Your task to perform on an android device: Open calendar and show me the third week of next month Image 0: 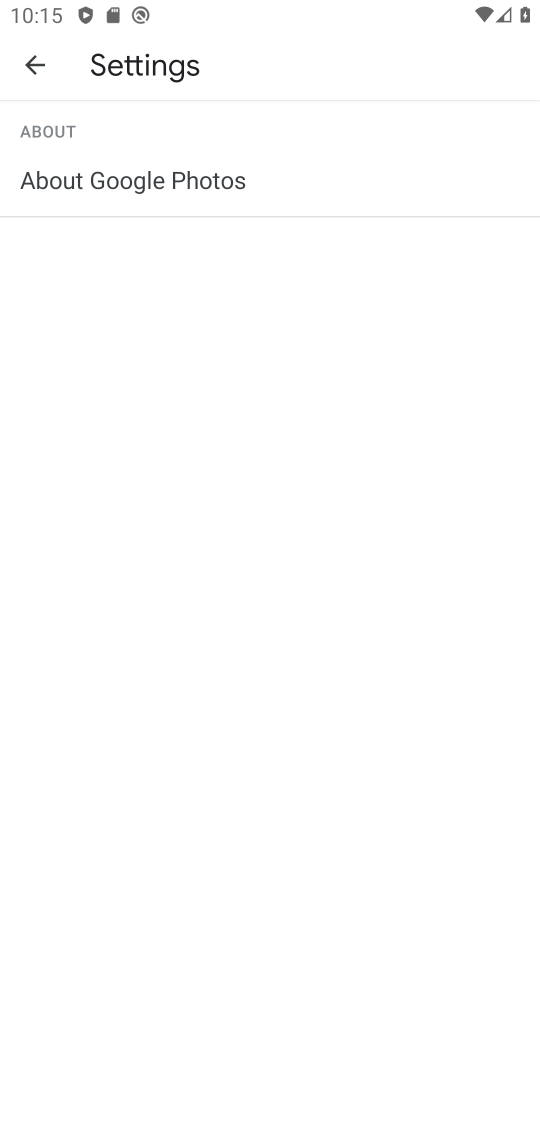
Step 0: press home button
Your task to perform on an android device: Open calendar and show me the third week of next month Image 1: 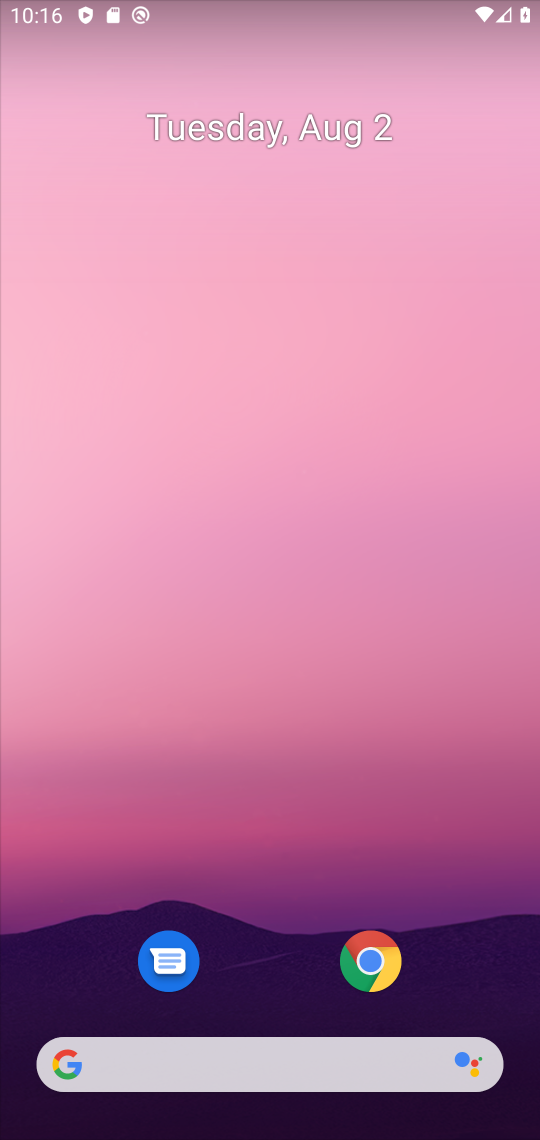
Step 1: drag from (271, 1010) to (339, 75)
Your task to perform on an android device: Open calendar and show me the third week of next month Image 2: 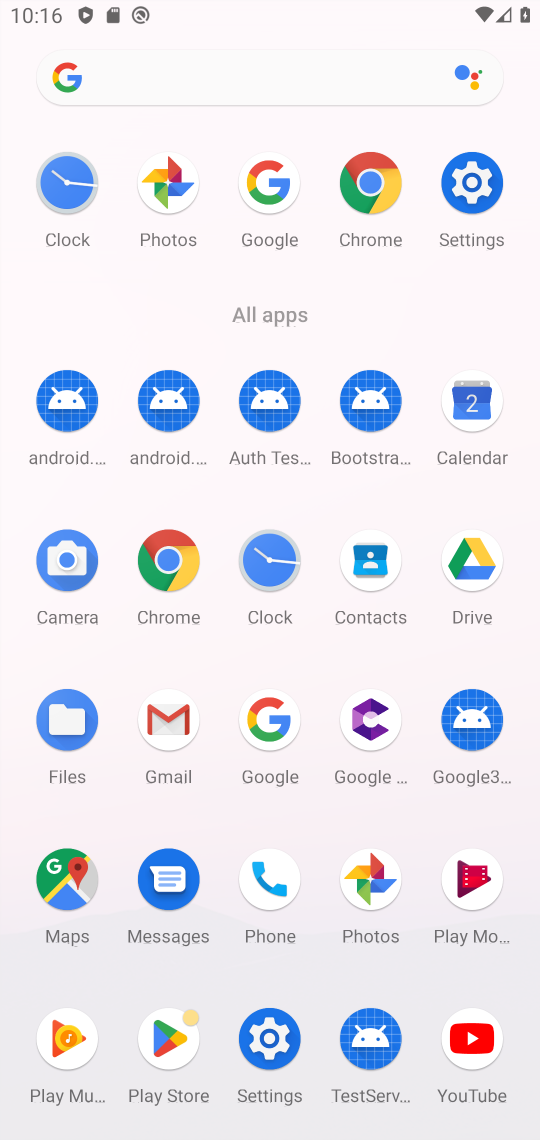
Step 2: click (472, 402)
Your task to perform on an android device: Open calendar and show me the third week of next month Image 3: 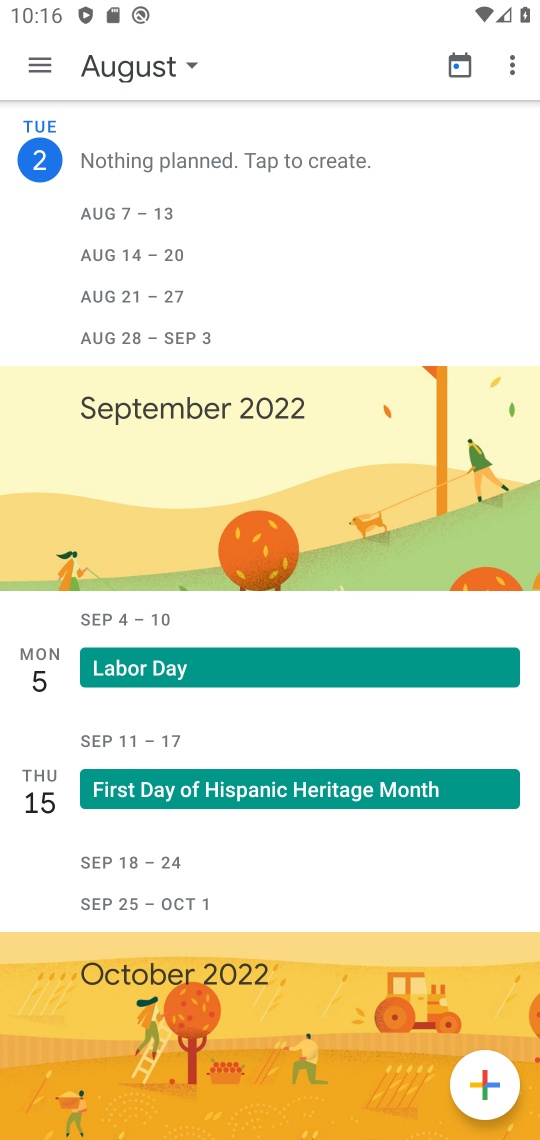
Step 3: click (43, 60)
Your task to perform on an android device: Open calendar and show me the third week of next month Image 4: 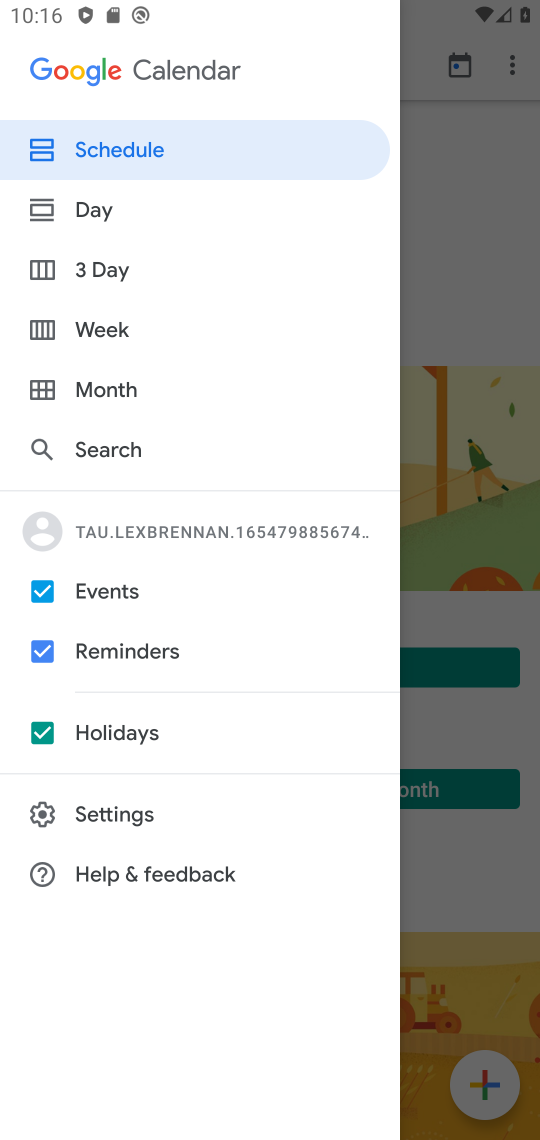
Step 4: click (106, 314)
Your task to perform on an android device: Open calendar and show me the third week of next month Image 5: 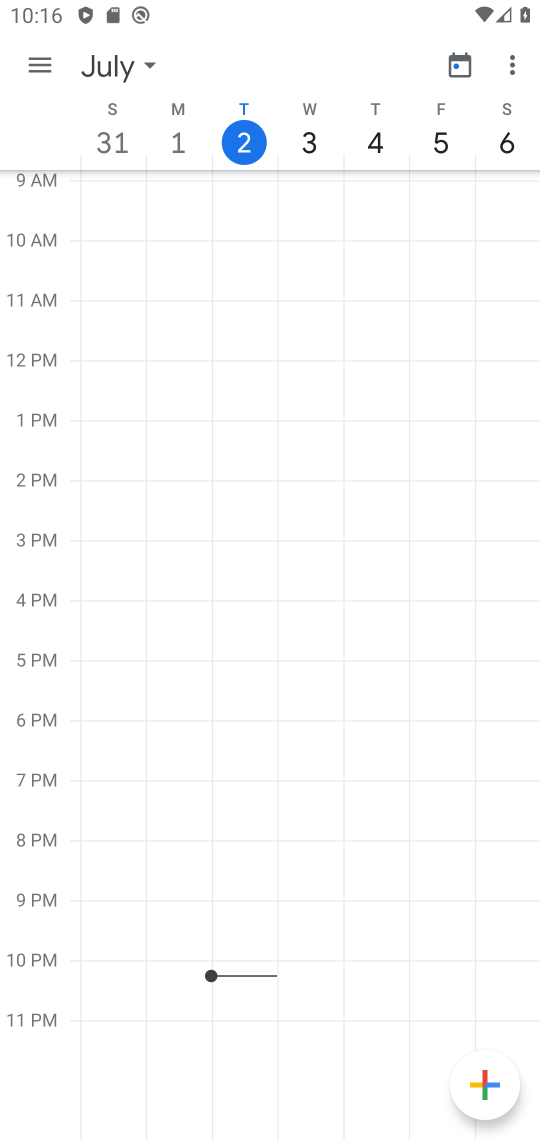
Step 5: drag from (507, 132) to (48, 130)
Your task to perform on an android device: Open calendar and show me the third week of next month Image 6: 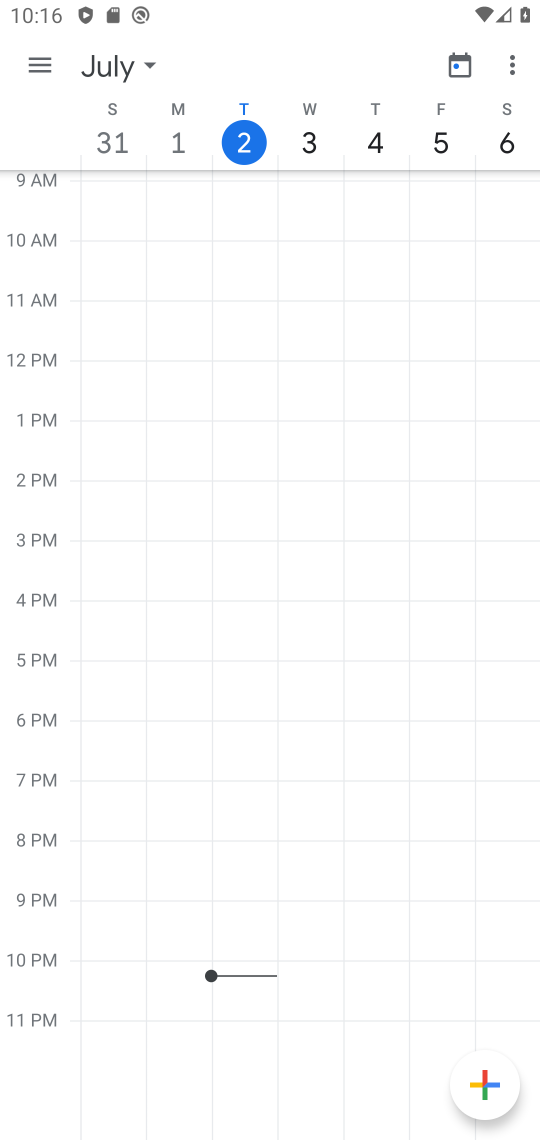
Step 6: click (140, 57)
Your task to perform on an android device: Open calendar and show me the third week of next month Image 7: 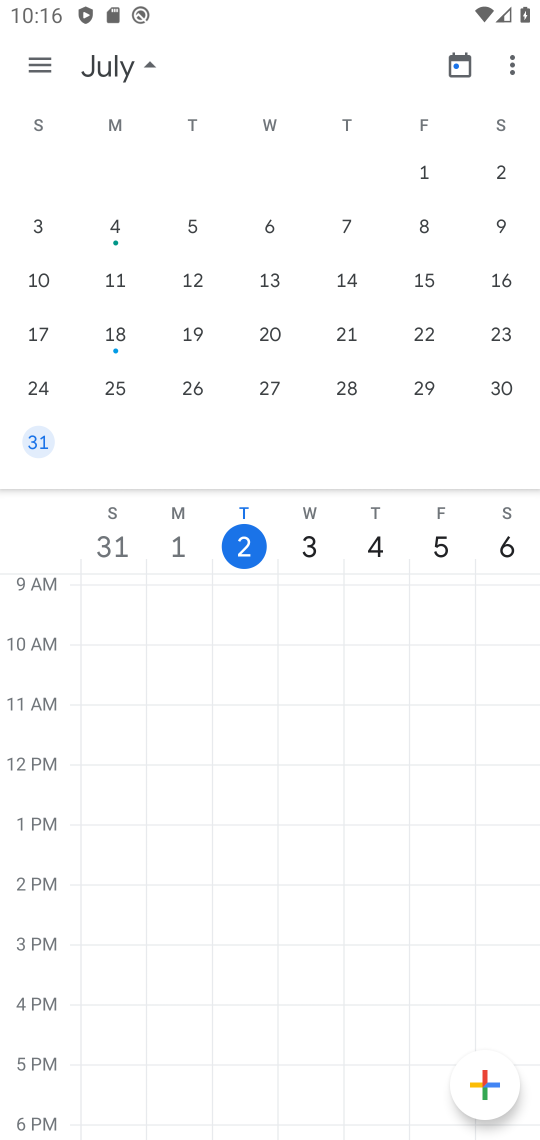
Step 7: drag from (467, 239) to (1, 310)
Your task to perform on an android device: Open calendar and show me the third week of next month Image 8: 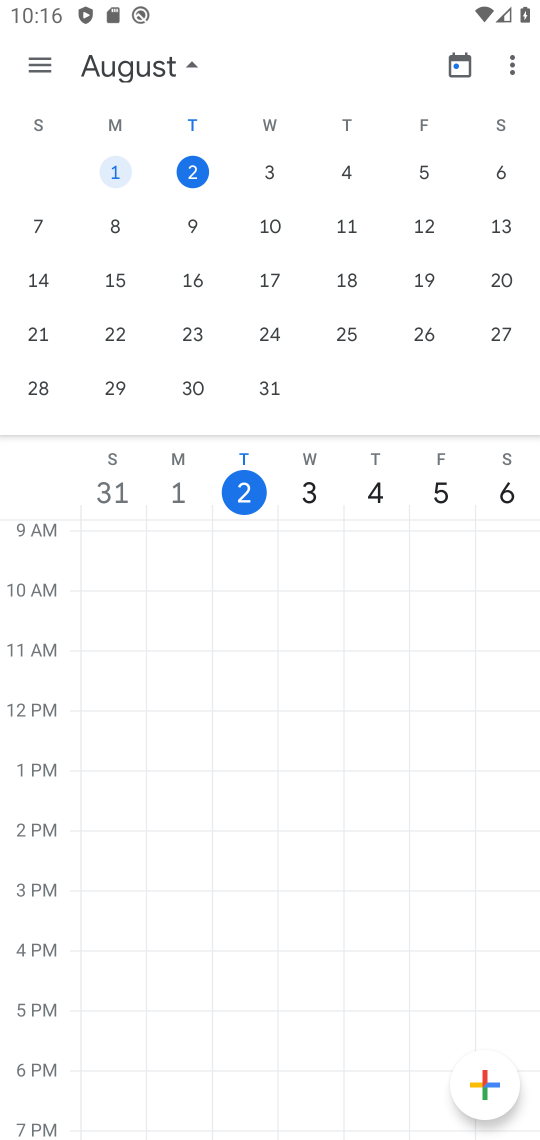
Step 8: drag from (472, 287) to (14, 301)
Your task to perform on an android device: Open calendar and show me the third week of next month Image 9: 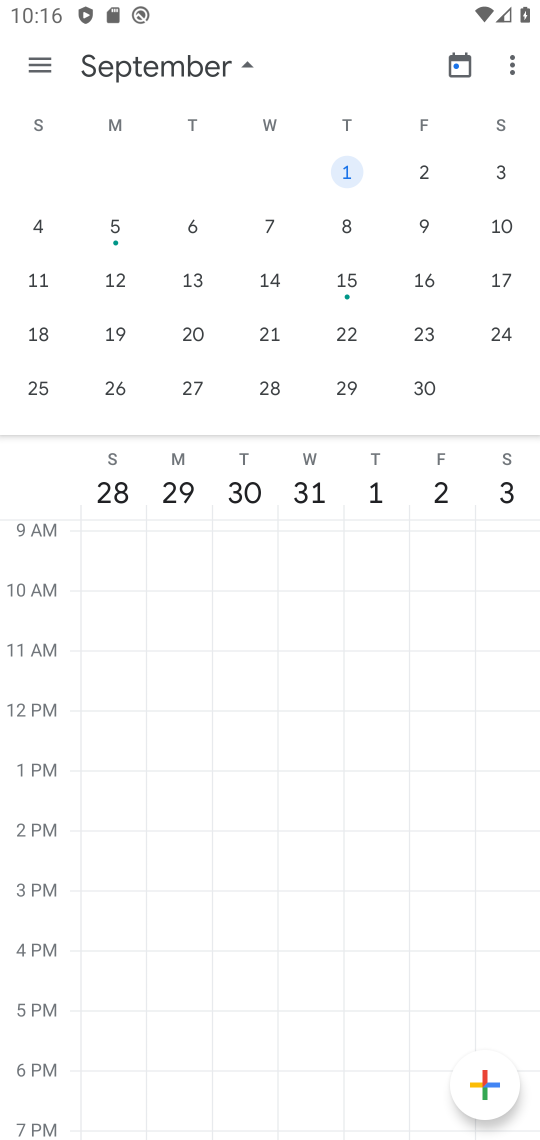
Step 9: click (31, 282)
Your task to perform on an android device: Open calendar and show me the third week of next month Image 10: 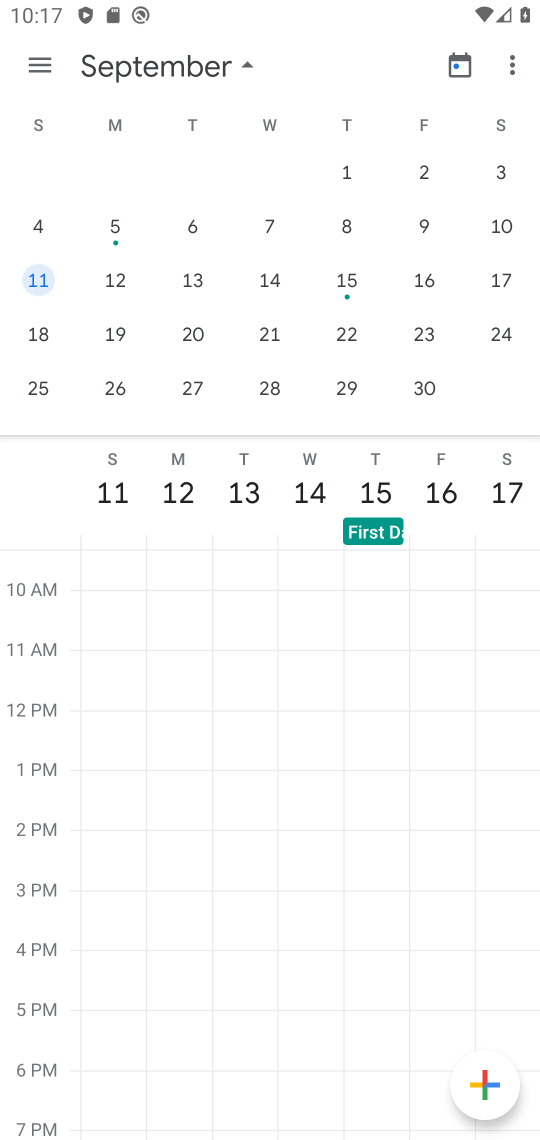
Step 10: click (247, 67)
Your task to perform on an android device: Open calendar and show me the third week of next month Image 11: 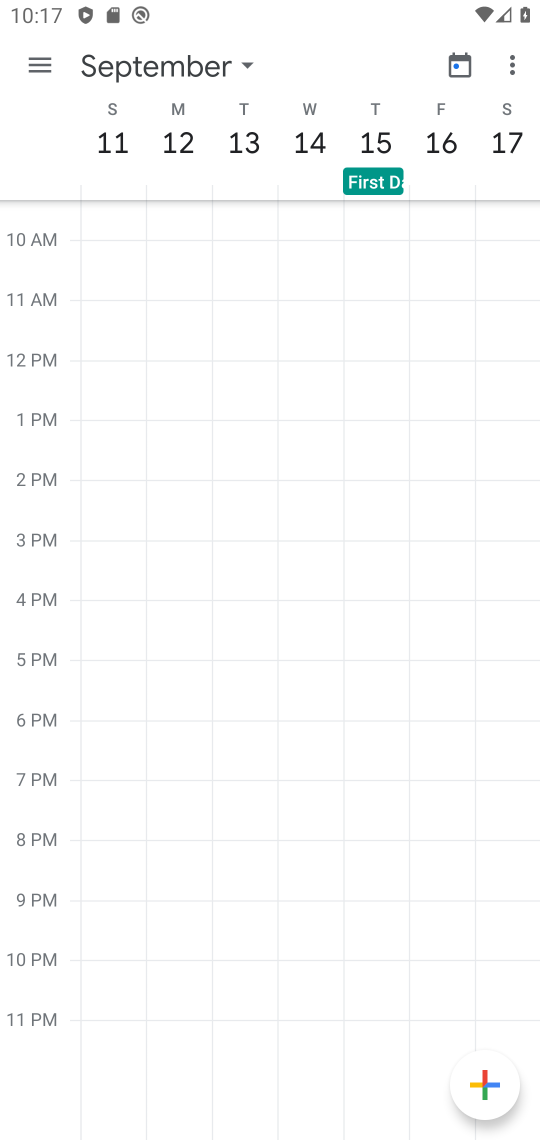
Step 11: task complete